Your task to perform on an android device: Search for Mexican restaurants on Maps Image 0: 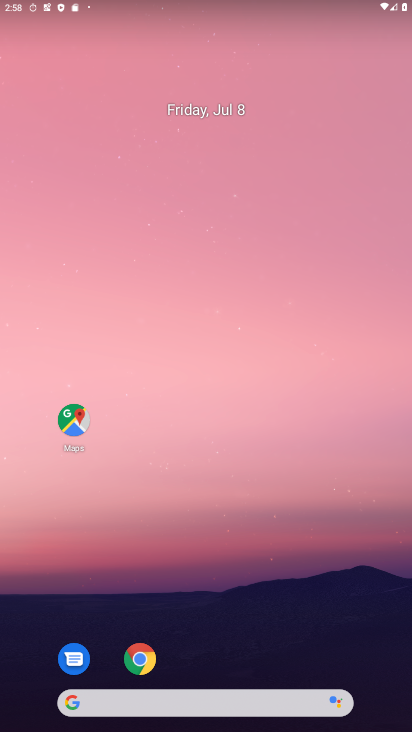
Step 0: click (70, 419)
Your task to perform on an android device: Search for Mexican restaurants on Maps Image 1: 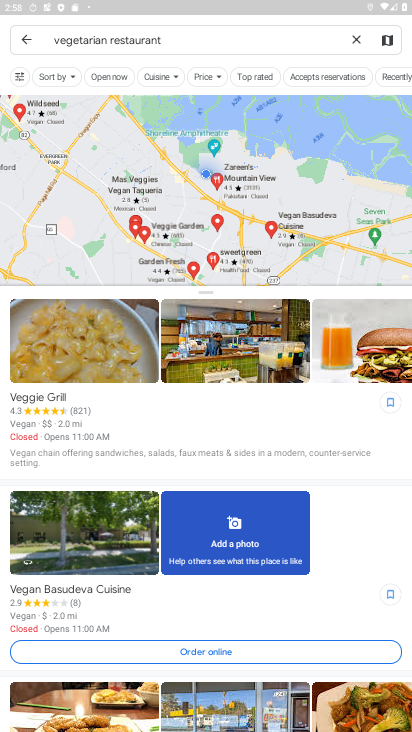
Step 1: click (357, 43)
Your task to perform on an android device: Search for Mexican restaurants on Maps Image 2: 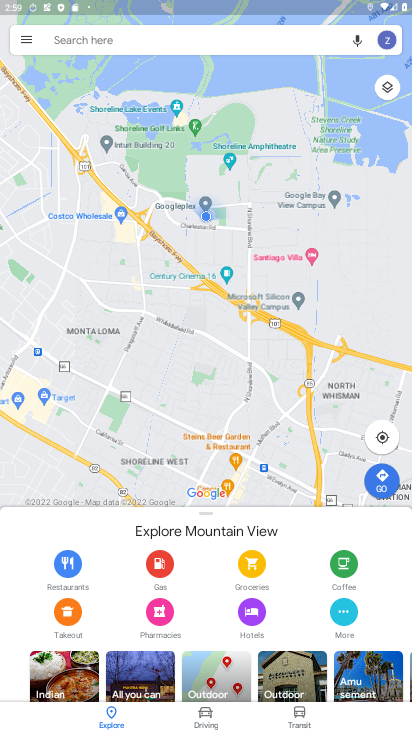
Step 2: click (293, 39)
Your task to perform on an android device: Search for Mexican restaurants on Maps Image 3: 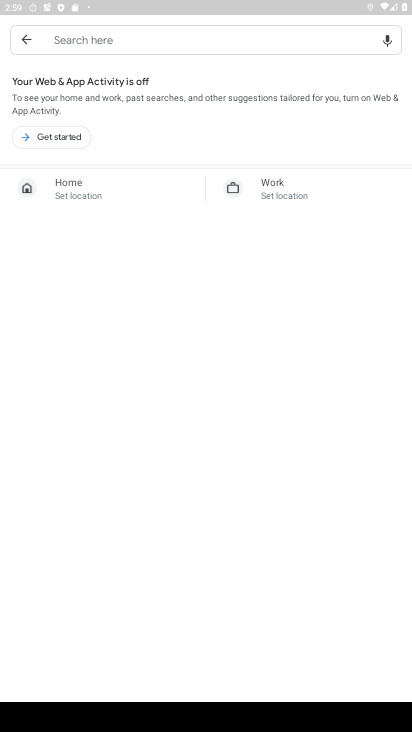
Step 3: type "mexican restaurants"
Your task to perform on an android device: Search for Mexican restaurants on Maps Image 4: 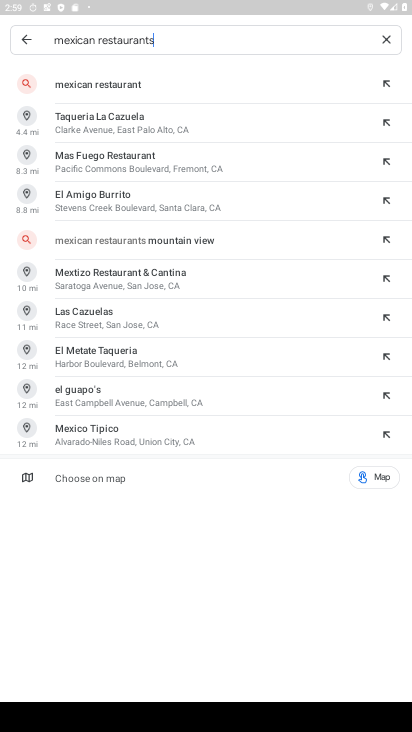
Step 4: click (296, 90)
Your task to perform on an android device: Search for Mexican restaurants on Maps Image 5: 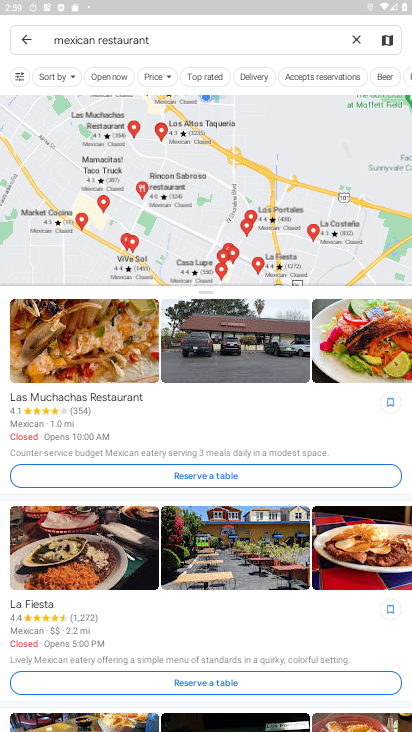
Step 5: task complete